Your task to perform on an android device: turn on data saver in the chrome app Image 0: 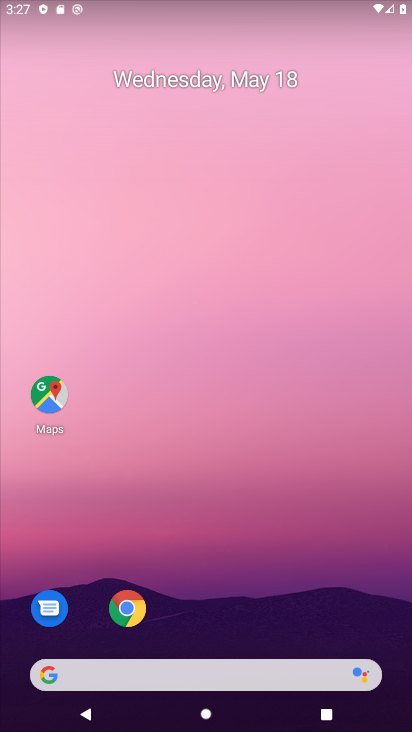
Step 0: click (131, 615)
Your task to perform on an android device: turn on data saver in the chrome app Image 1: 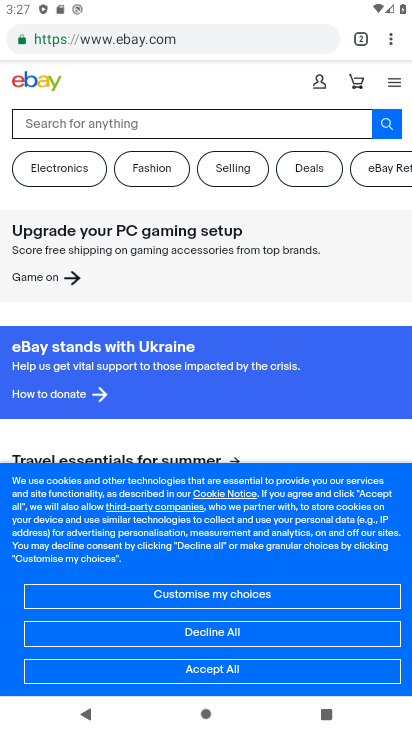
Step 1: click (398, 39)
Your task to perform on an android device: turn on data saver in the chrome app Image 2: 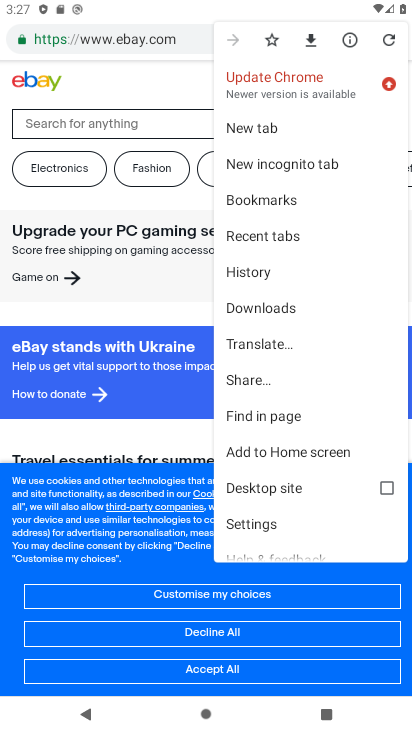
Step 2: click (282, 527)
Your task to perform on an android device: turn on data saver in the chrome app Image 3: 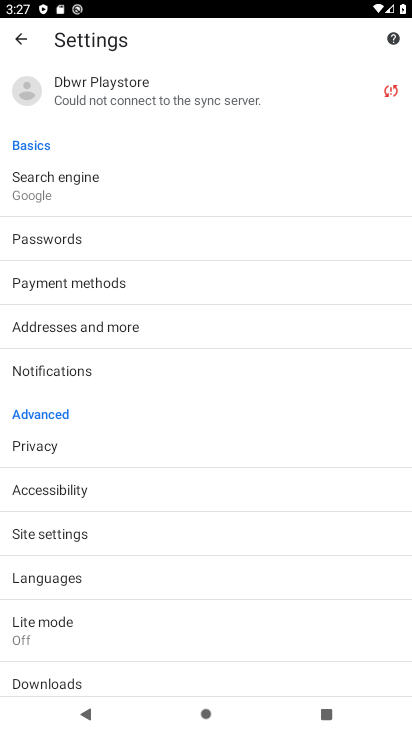
Step 3: click (282, 527)
Your task to perform on an android device: turn on data saver in the chrome app Image 4: 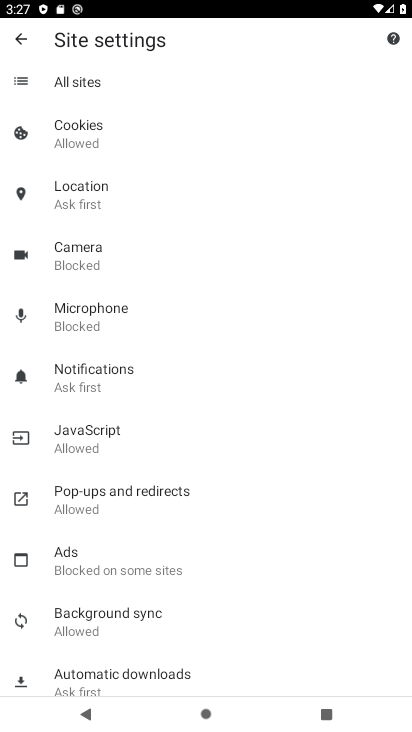
Step 4: click (37, 41)
Your task to perform on an android device: turn on data saver in the chrome app Image 5: 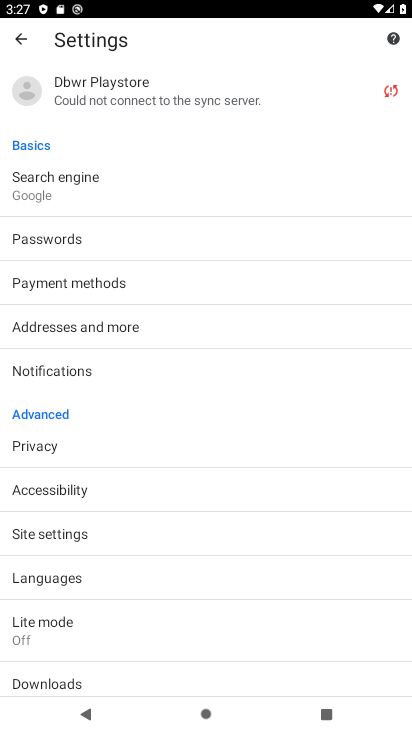
Step 5: click (149, 634)
Your task to perform on an android device: turn on data saver in the chrome app Image 6: 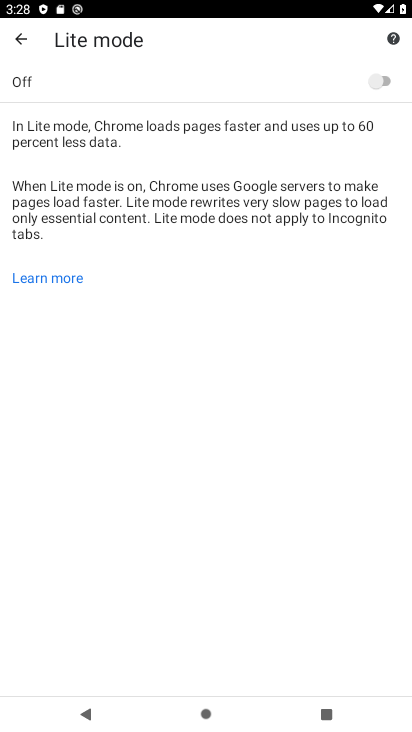
Step 6: click (383, 83)
Your task to perform on an android device: turn on data saver in the chrome app Image 7: 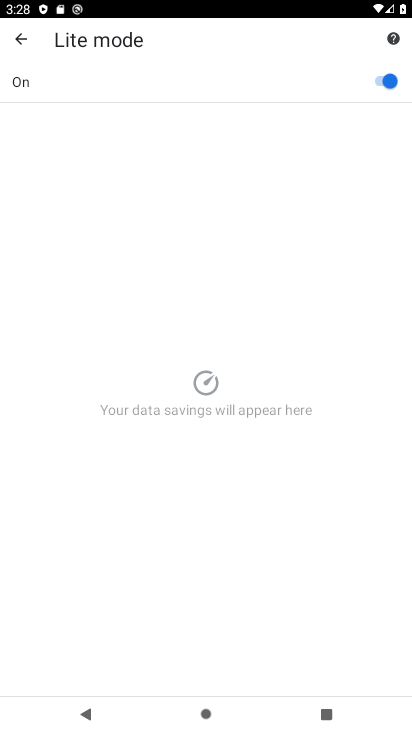
Step 7: task complete